Your task to perform on an android device: Go to eBay Image 0: 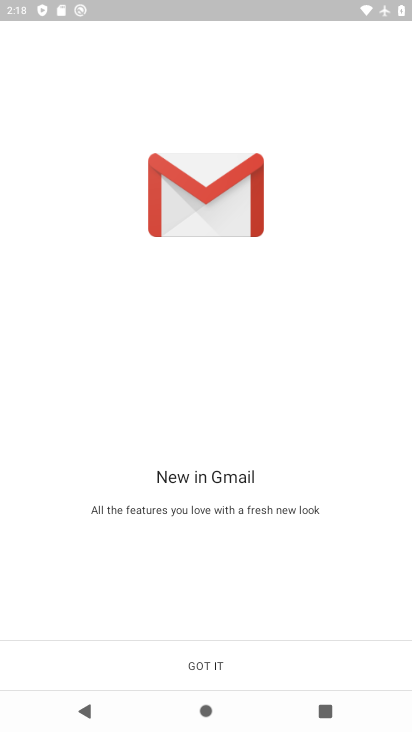
Step 0: press home button
Your task to perform on an android device: Go to eBay Image 1: 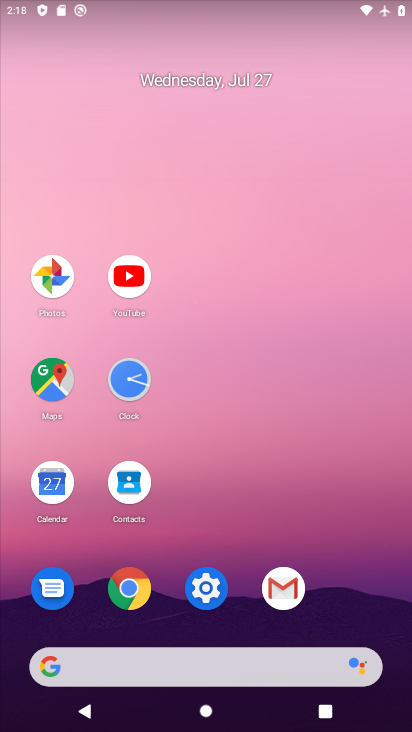
Step 1: click (130, 587)
Your task to perform on an android device: Go to eBay Image 2: 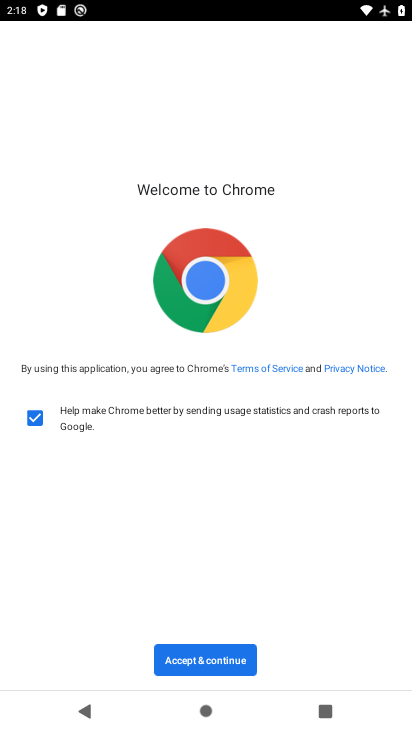
Step 2: click (192, 663)
Your task to perform on an android device: Go to eBay Image 3: 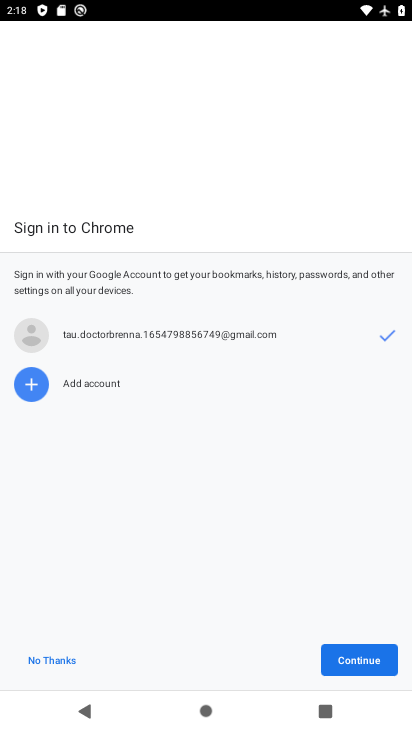
Step 3: click (367, 662)
Your task to perform on an android device: Go to eBay Image 4: 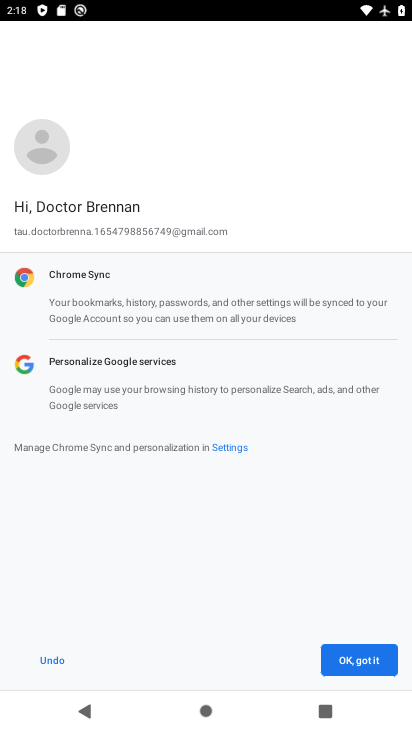
Step 4: click (365, 658)
Your task to perform on an android device: Go to eBay Image 5: 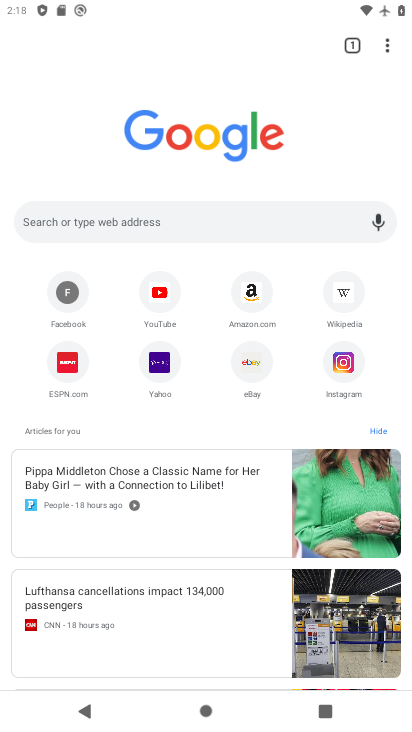
Step 5: click (251, 365)
Your task to perform on an android device: Go to eBay Image 6: 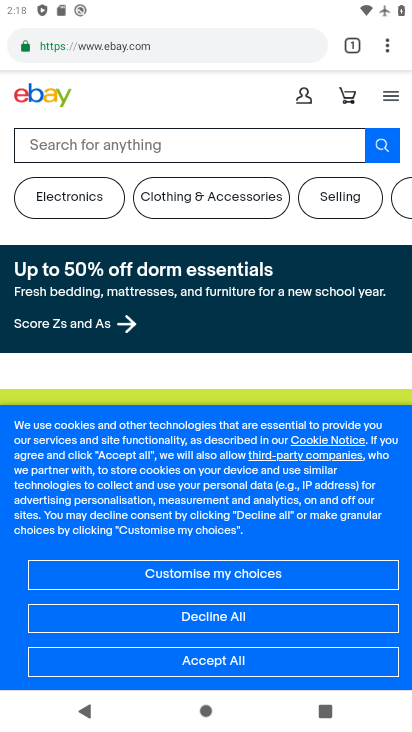
Step 6: task complete